Your task to perform on an android device: toggle pop-ups in chrome Image 0: 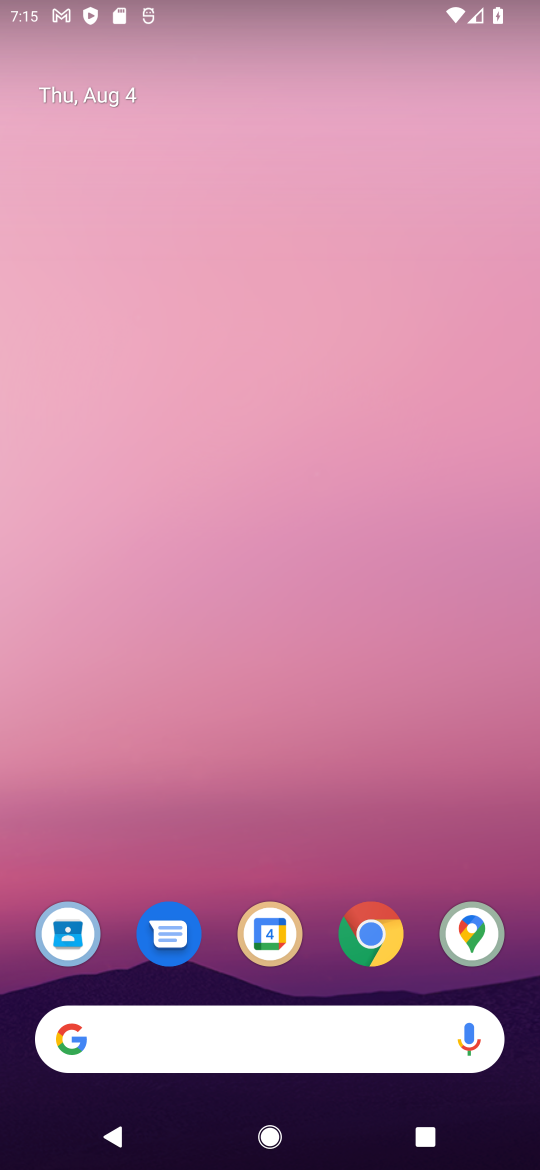
Step 0: click (355, 935)
Your task to perform on an android device: toggle pop-ups in chrome Image 1: 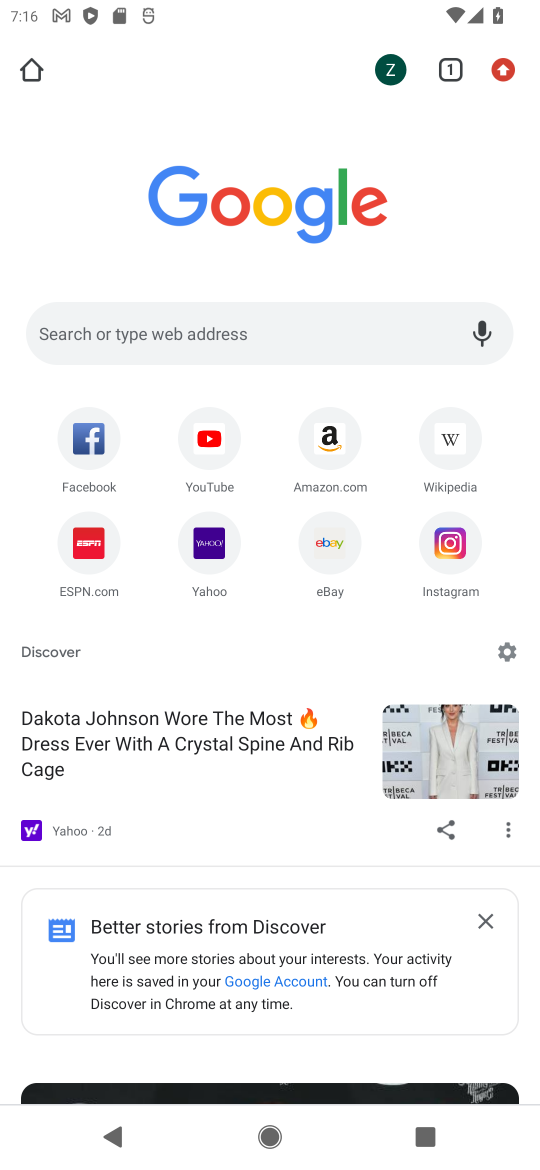
Step 1: drag from (499, 76) to (324, 684)
Your task to perform on an android device: toggle pop-ups in chrome Image 2: 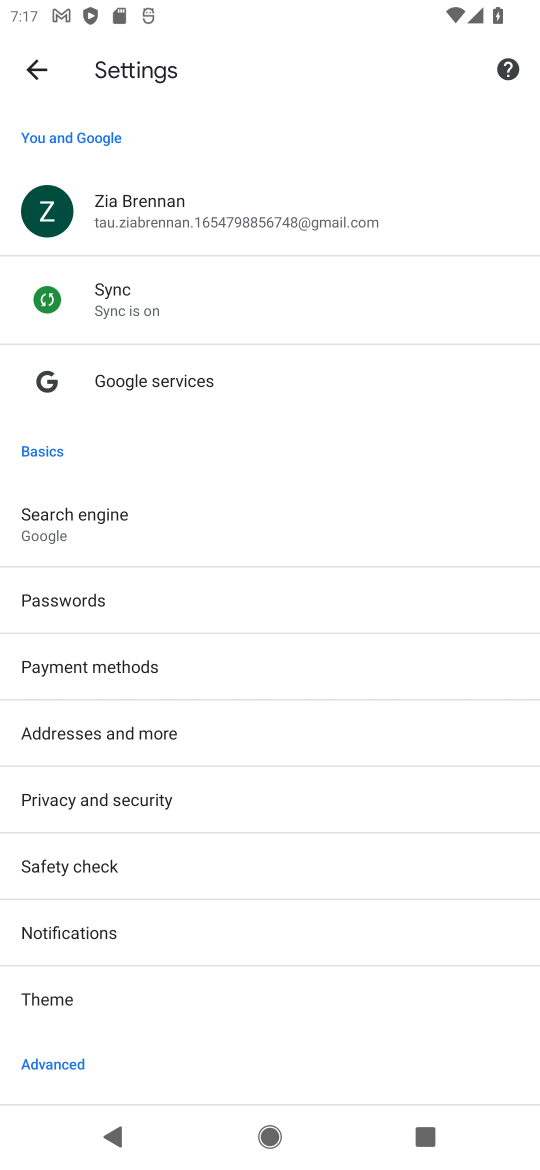
Step 2: drag from (132, 976) to (92, 437)
Your task to perform on an android device: toggle pop-ups in chrome Image 3: 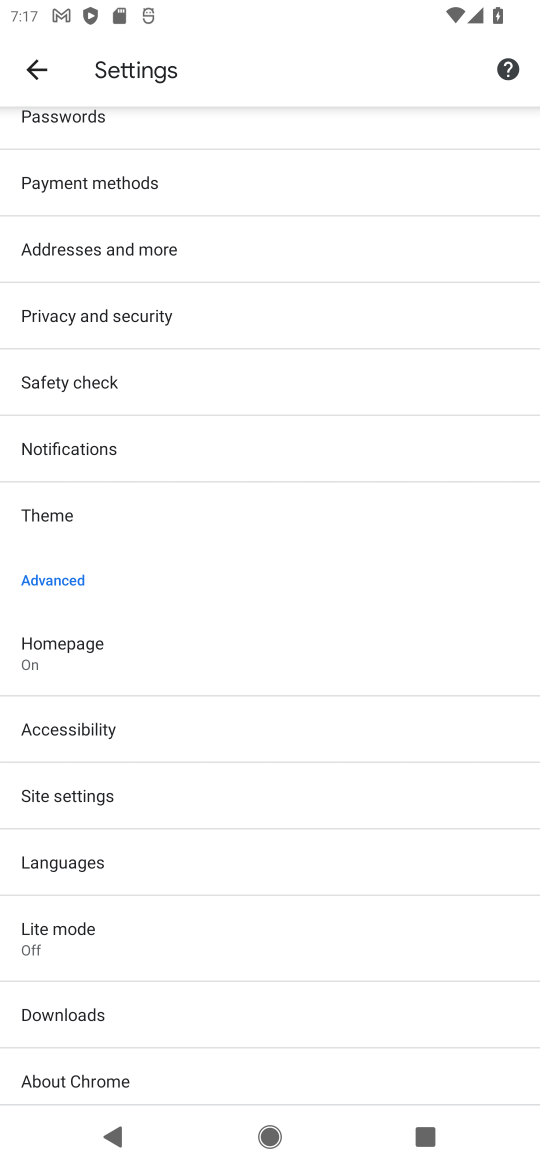
Step 3: click (150, 815)
Your task to perform on an android device: toggle pop-ups in chrome Image 4: 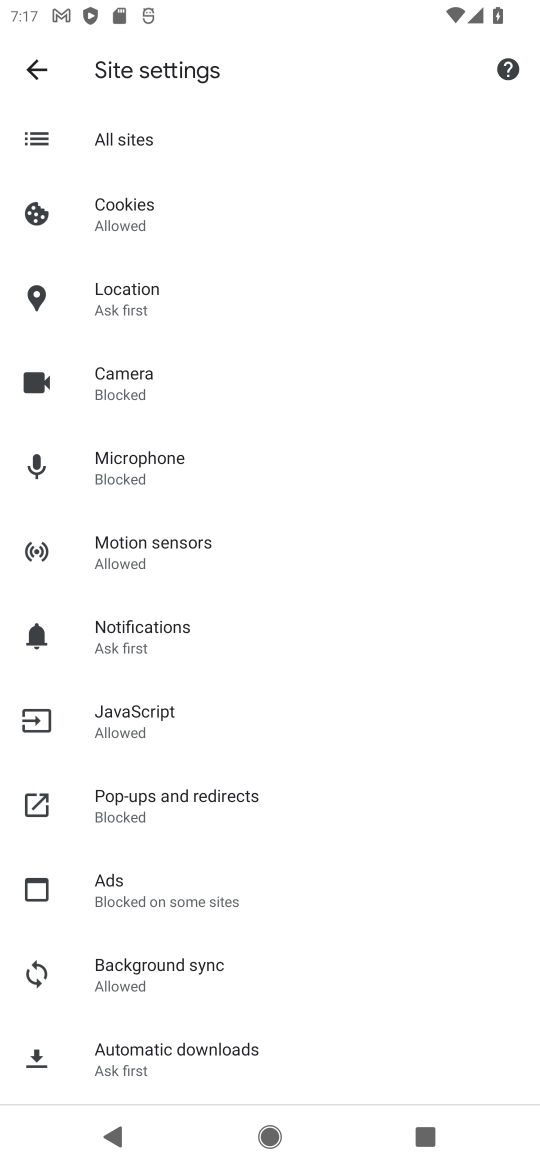
Step 4: click (223, 800)
Your task to perform on an android device: toggle pop-ups in chrome Image 5: 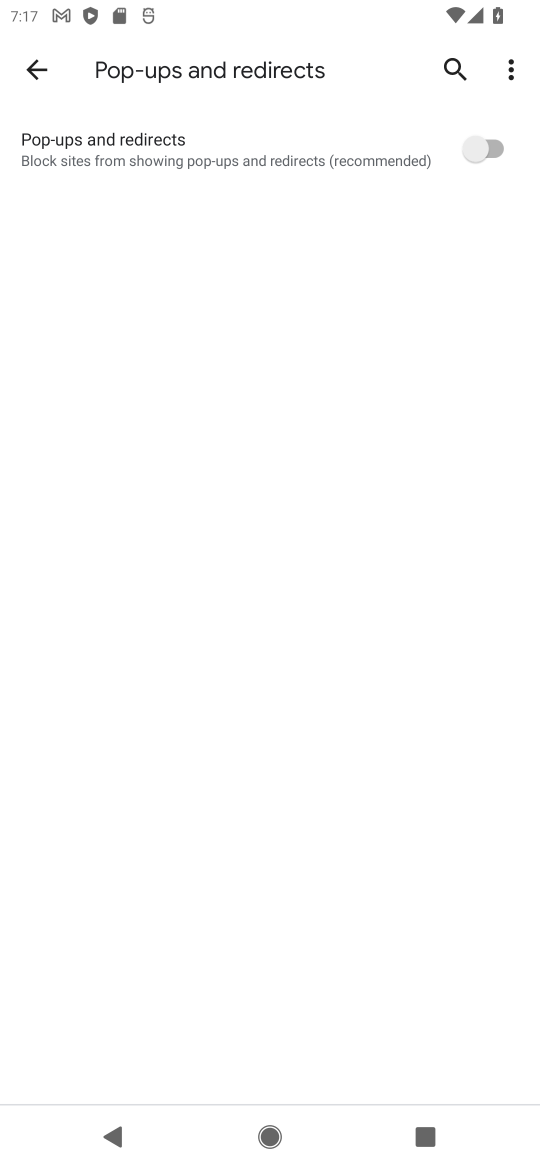
Step 5: click (496, 144)
Your task to perform on an android device: toggle pop-ups in chrome Image 6: 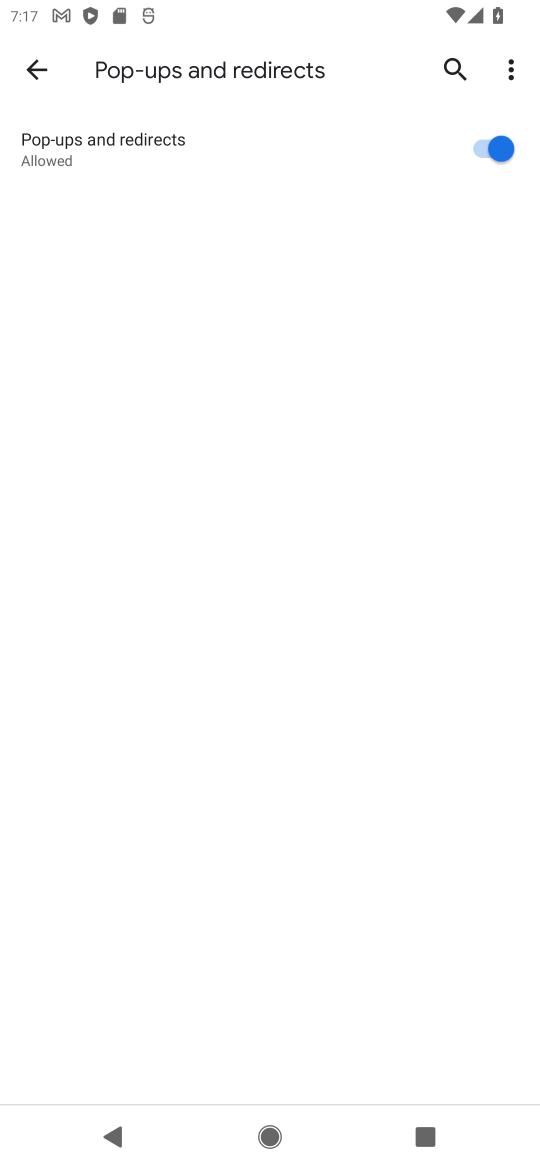
Step 6: task complete